Your task to perform on an android device: Go to CNN.com Image 0: 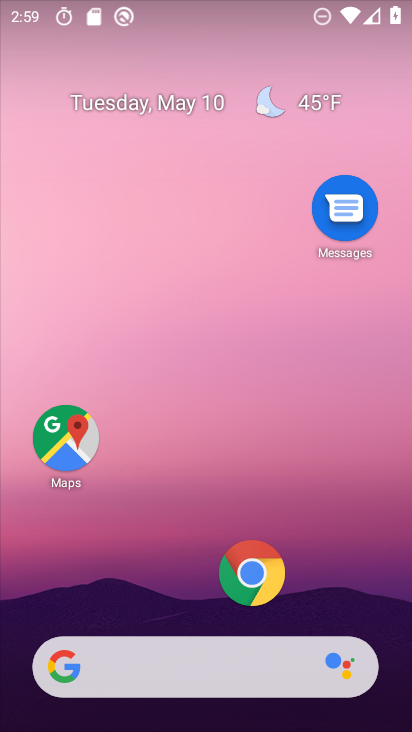
Step 0: drag from (164, 620) to (179, 5)
Your task to perform on an android device: Go to CNN.com Image 1: 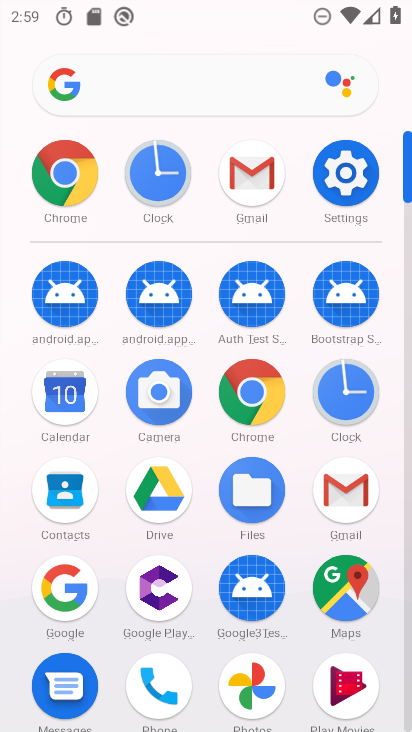
Step 1: click (229, 66)
Your task to perform on an android device: Go to CNN.com Image 2: 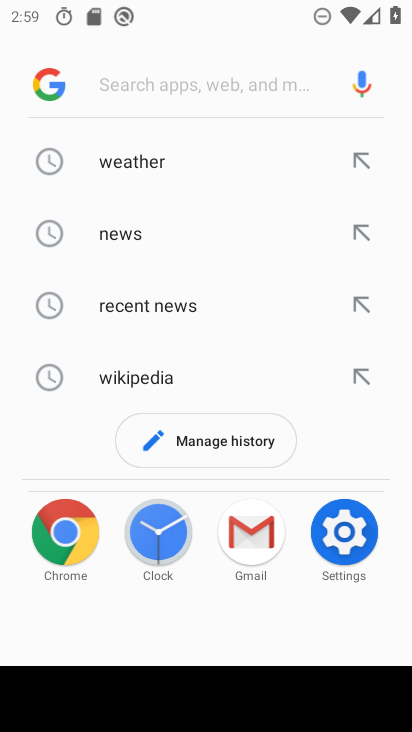
Step 2: type "cnn.com"
Your task to perform on an android device: Go to CNN.com Image 3: 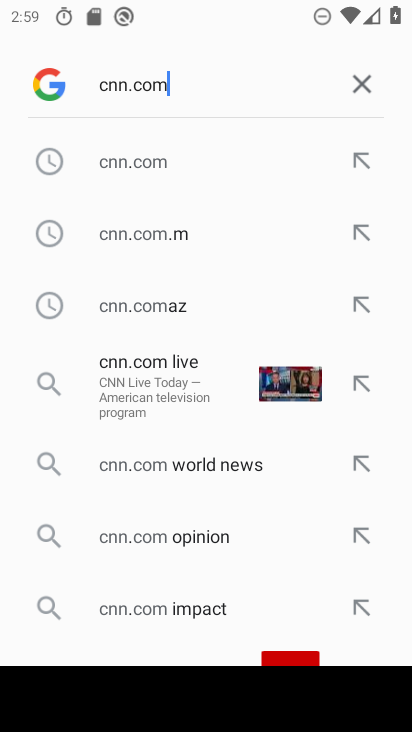
Step 3: click (139, 169)
Your task to perform on an android device: Go to CNN.com Image 4: 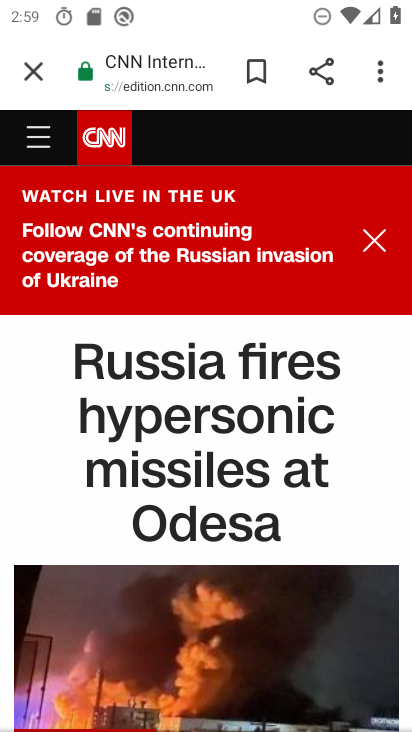
Step 4: task complete